Your task to perform on an android device: turn on javascript in the chrome app Image 0: 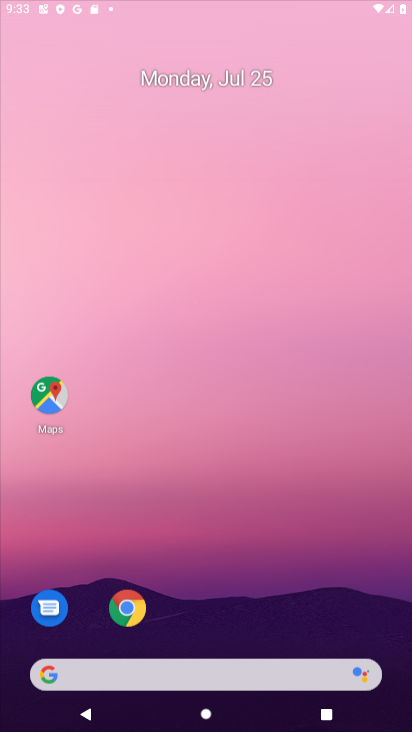
Step 0: press home button
Your task to perform on an android device: turn on javascript in the chrome app Image 1: 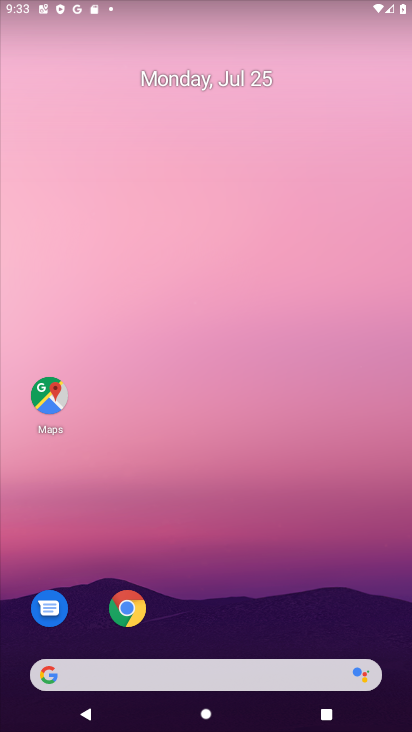
Step 1: drag from (192, 586) to (203, 241)
Your task to perform on an android device: turn on javascript in the chrome app Image 2: 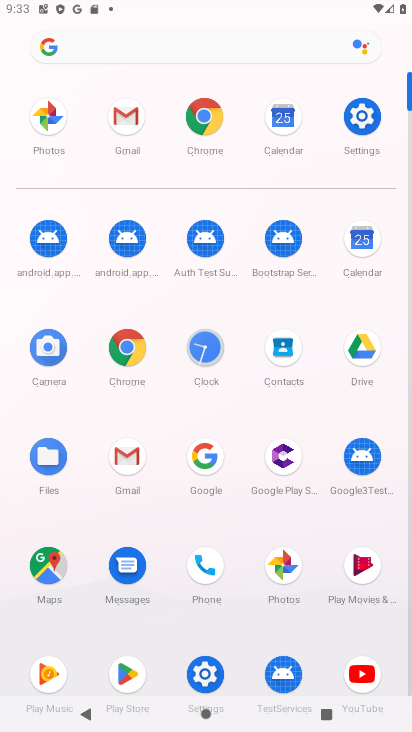
Step 2: click (186, 123)
Your task to perform on an android device: turn on javascript in the chrome app Image 3: 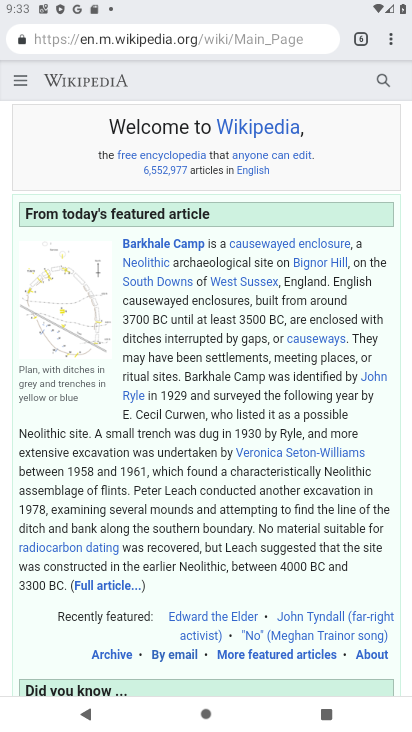
Step 3: click (394, 29)
Your task to perform on an android device: turn on javascript in the chrome app Image 4: 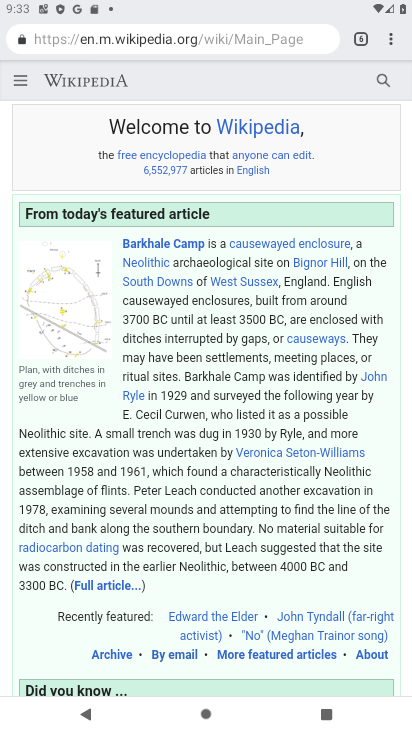
Step 4: click (389, 37)
Your task to perform on an android device: turn on javascript in the chrome app Image 5: 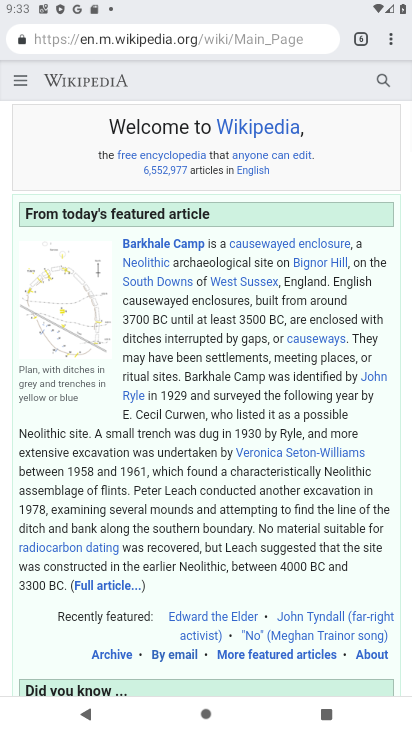
Step 5: click (393, 39)
Your task to perform on an android device: turn on javascript in the chrome app Image 6: 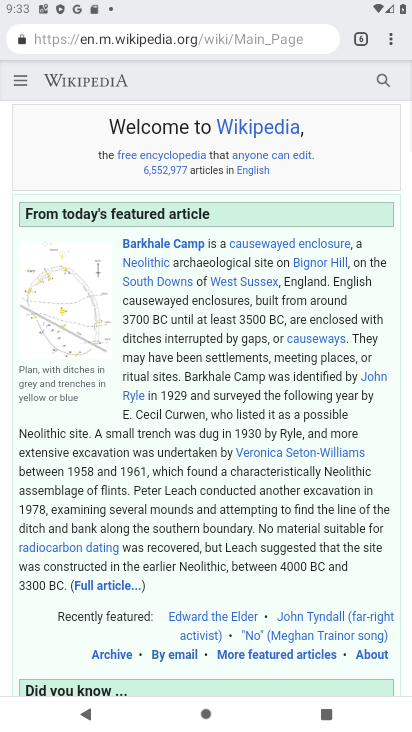
Step 6: click (393, 39)
Your task to perform on an android device: turn on javascript in the chrome app Image 7: 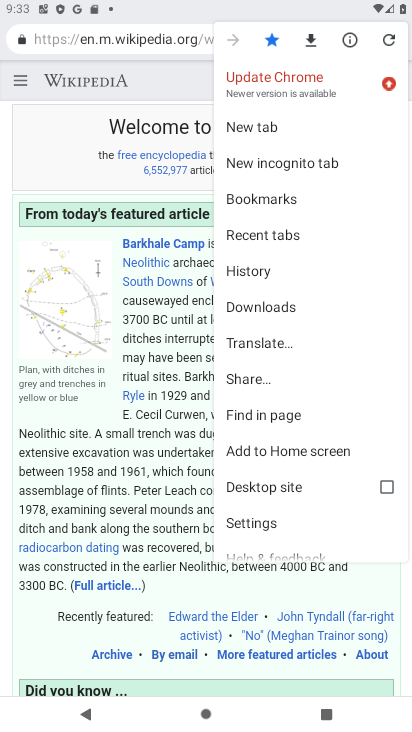
Step 7: click (272, 516)
Your task to perform on an android device: turn on javascript in the chrome app Image 8: 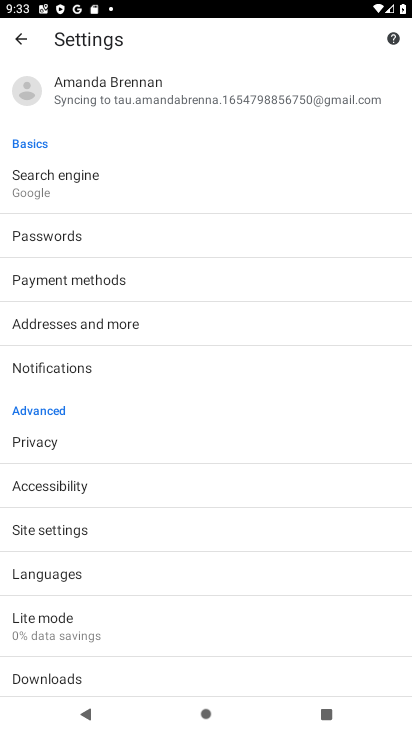
Step 8: click (80, 525)
Your task to perform on an android device: turn on javascript in the chrome app Image 9: 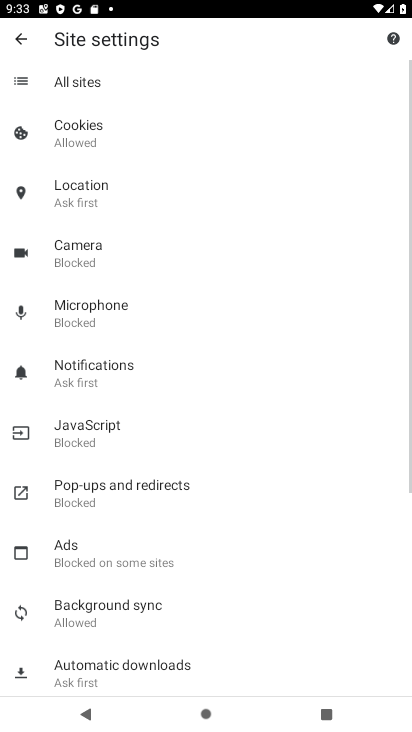
Step 9: click (132, 431)
Your task to perform on an android device: turn on javascript in the chrome app Image 10: 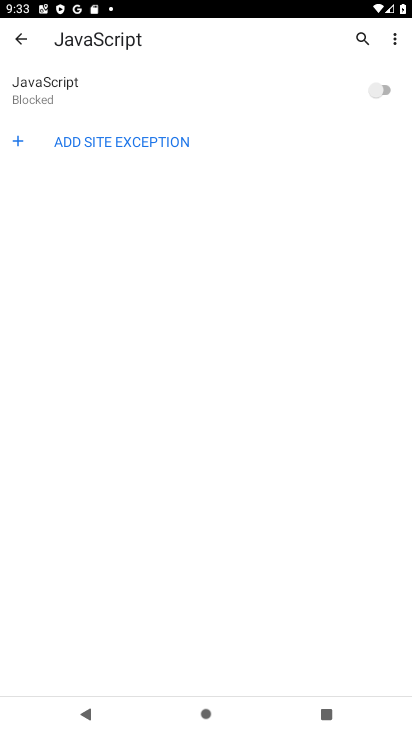
Step 10: click (391, 78)
Your task to perform on an android device: turn on javascript in the chrome app Image 11: 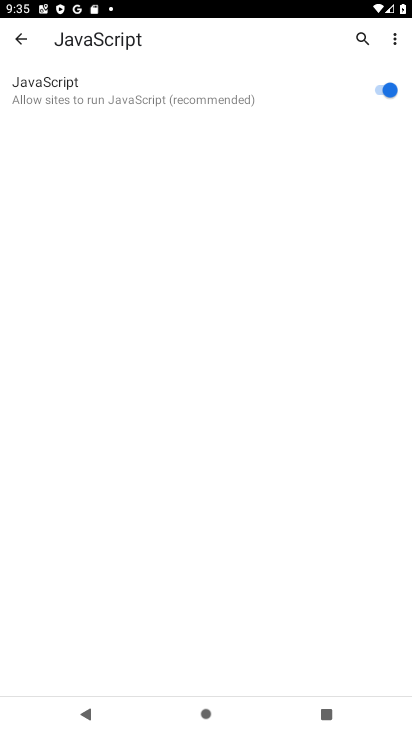
Step 11: task complete